Your task to perform on an android device: remove spam from my inbox in the gmail app Image 0: 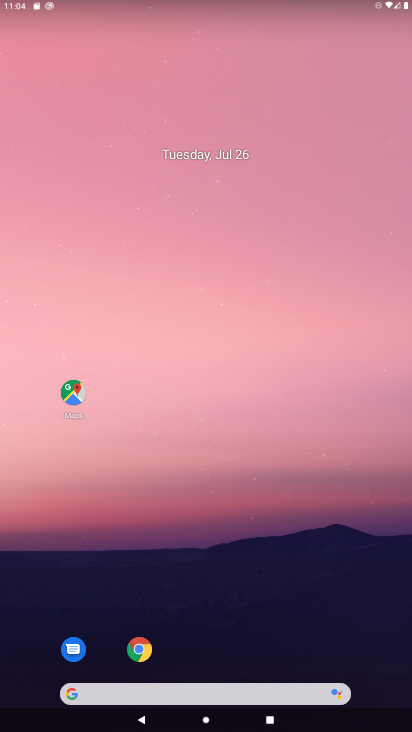
Step 0: drag from (212, 692) to (155, 346)
Your task to perform on an android device: remove spam from my inbox in the gmail app Image 1: 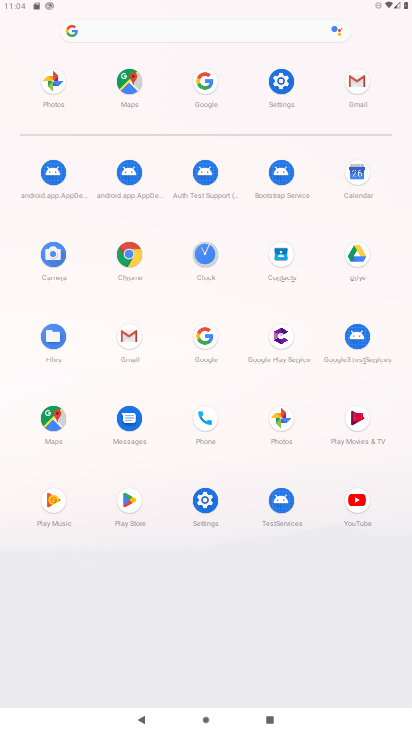
Step 1: click (119, 338)
Your task to perform on an android device: remove spam from my inbox in the gmail app Image 2: 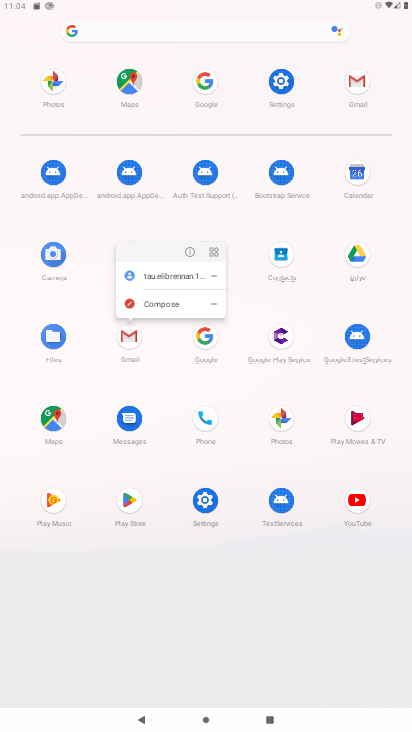
Step 2: click (127, 339)
Your task to perform on an android device: remove spam from my inbox in the gmail app Image 3: 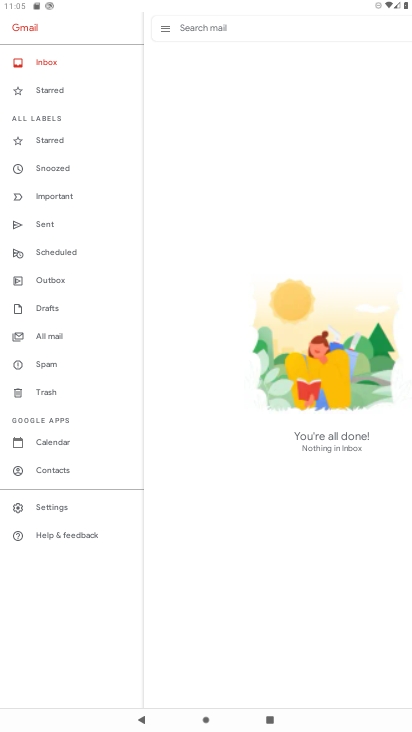
Step 3: click (43, 362)
Your task to perform on an android device: remove spam from my inbox in the gmail app Image 4: 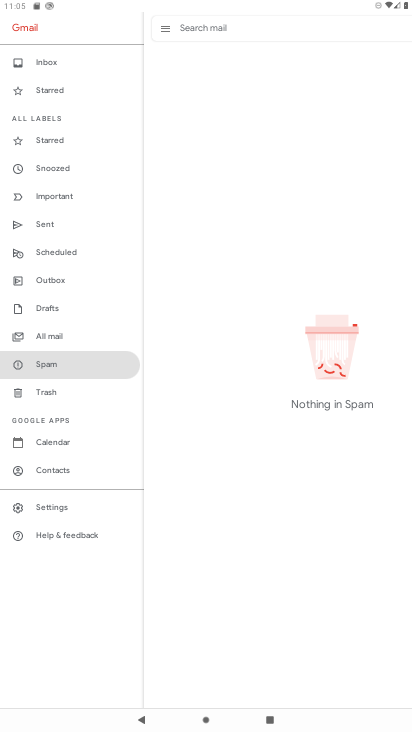
Step 4: task complete